Your task to perform on an android device: open a new tab in the chrome app Image 0: 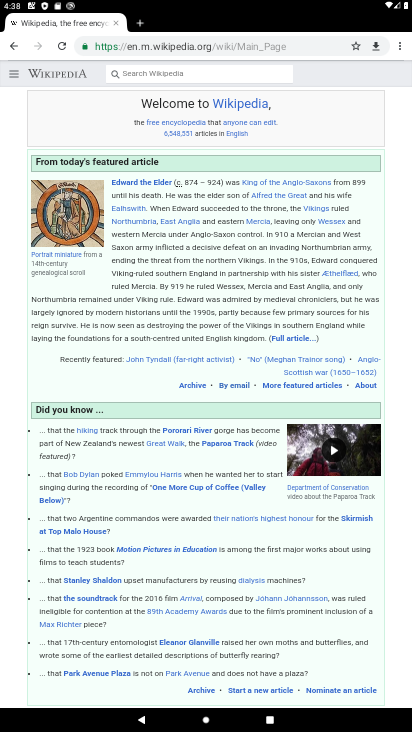
Step 0: click (401, 47)
Your task to perform on an android device: open a new tab in the chrome app Image 1: 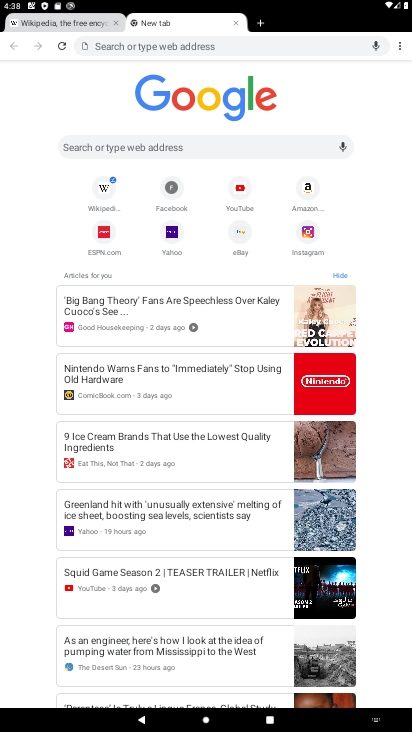
Step 1: task complete